Your task to perform on an android device: change notification settings in the gmail app Image 0: 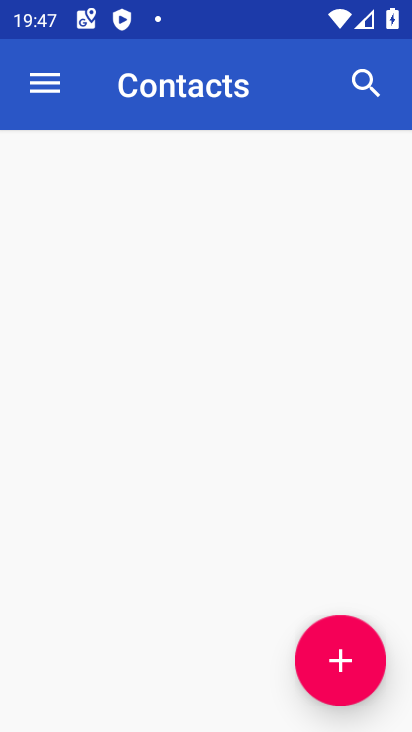
Step 0: drag from (190, 608) to (211, 120)
Your task to perform on an android device: change notification settings in the gmail app Image 1: 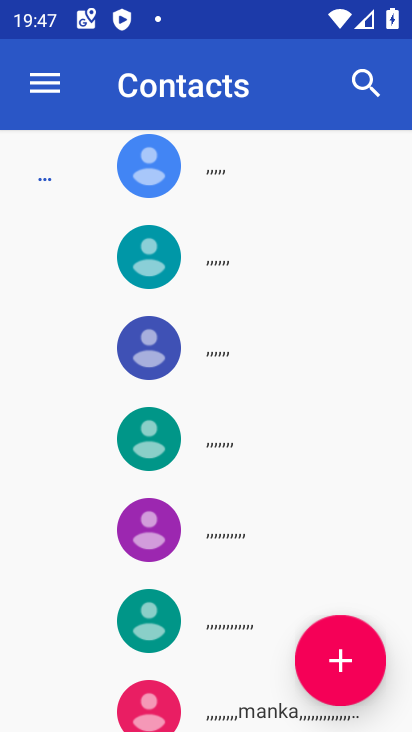
Step 1: press home button
Your task to perform on an android device: change notification settings in the gmail app Image 2: 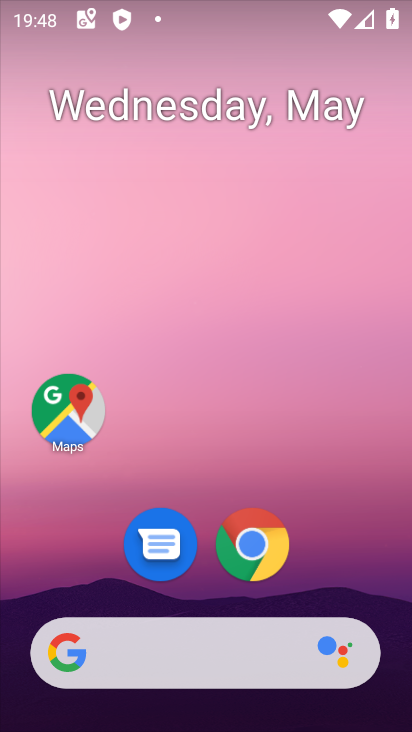
Step 2: drag from (204, 591) to (300, 43)
Your task to perform on an android device: change notification settings in the gmail app Image 3: 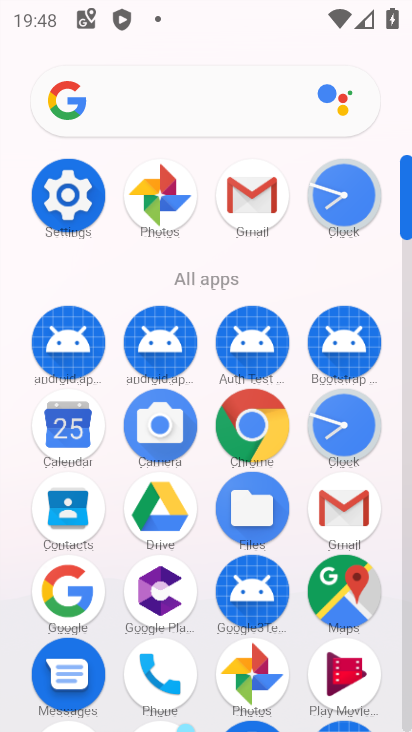
Step 3: click (239, 197)
Your task to perform on an android device: change notification settings in the gmail app Image 4: 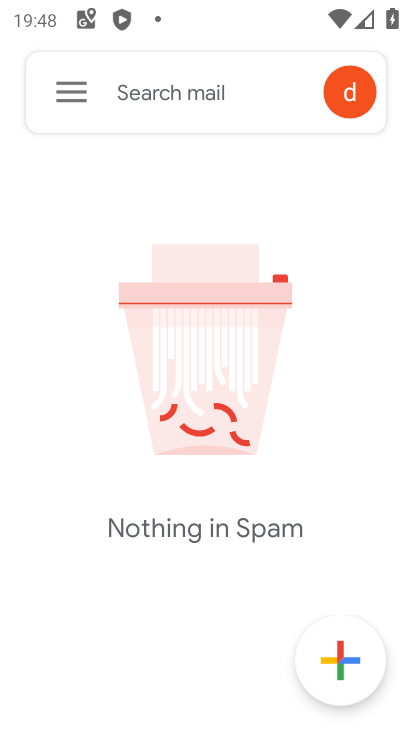
Step 4: click (75, 83)
Your task to perform on an android device: change notification settings in the gmail app Image 5: 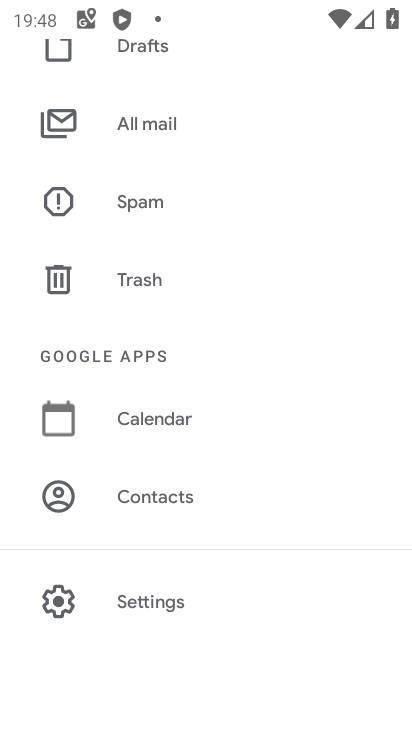
Step 5: click (154, 603)
Your task to perform on an android device: change notification settings in the gmail app Image 6: 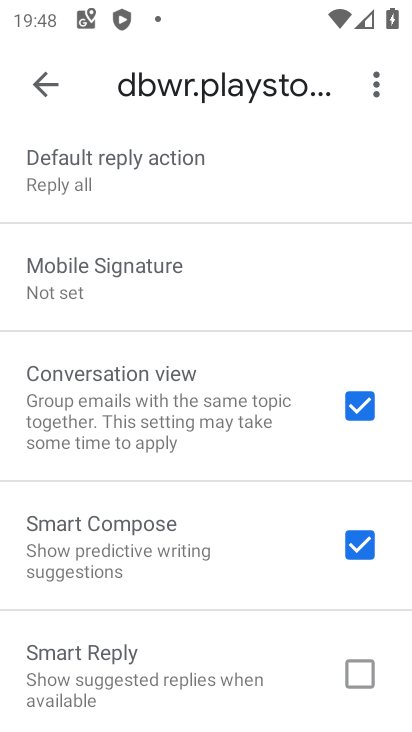
Step 6: drag from (178, 175) to (133, 718)
Your task to perform on an android device: change notification settings in the gmail app Image 7: 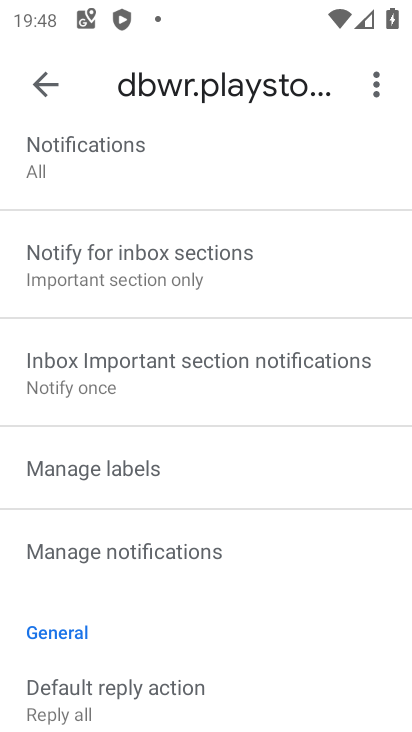
Step 7: click (294, 165)
Your task to perform on an android device: change notification settings in the gmail app Image 8: 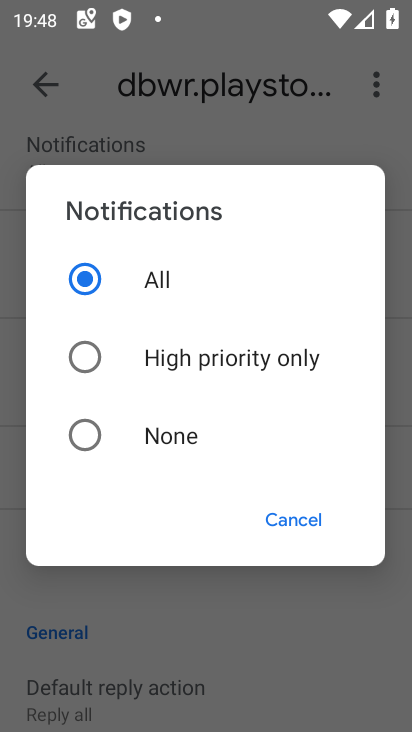
Step 8: click (188, 349)
Your task to perform on an android device: change notification settings in the gmail app Image 9: 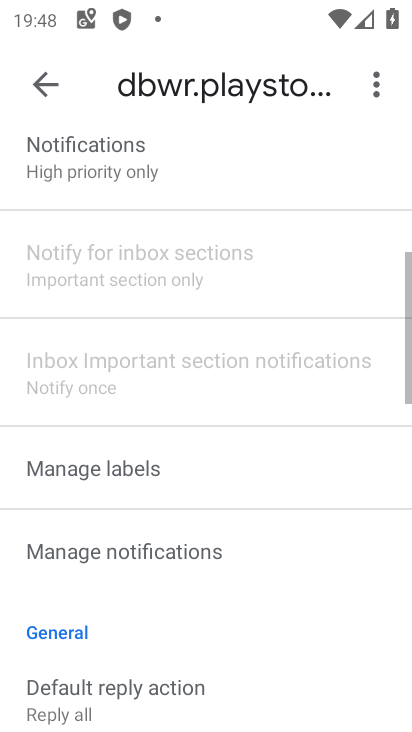
Step 9: task complete